Your task to perform on an android device: open a new tab in the chrome app Image 0: 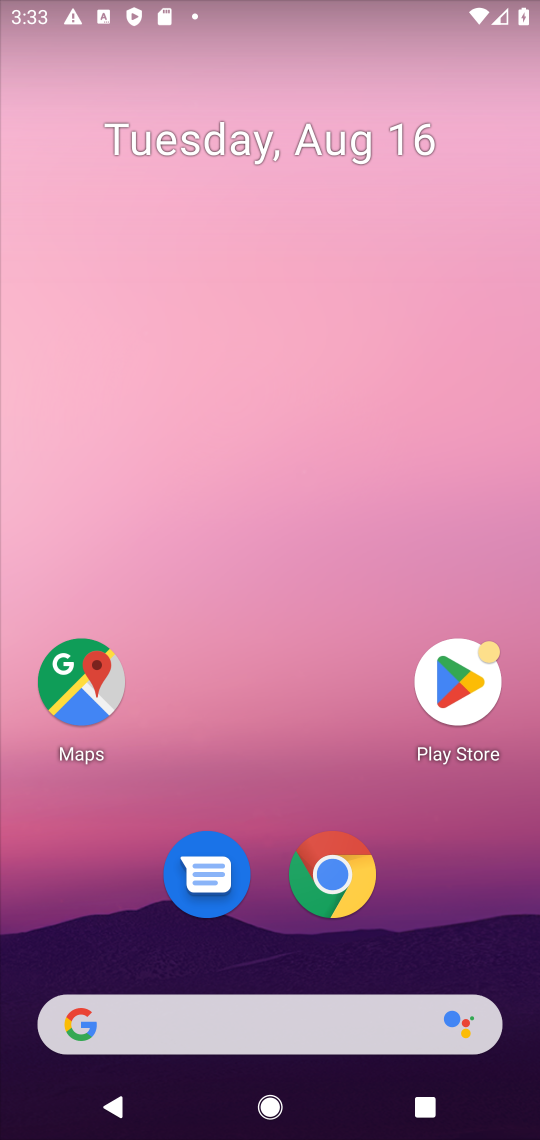
Step 0: click (346, 896)
Your task to perform on an android device: open a new tab in the chrome app Image 1: 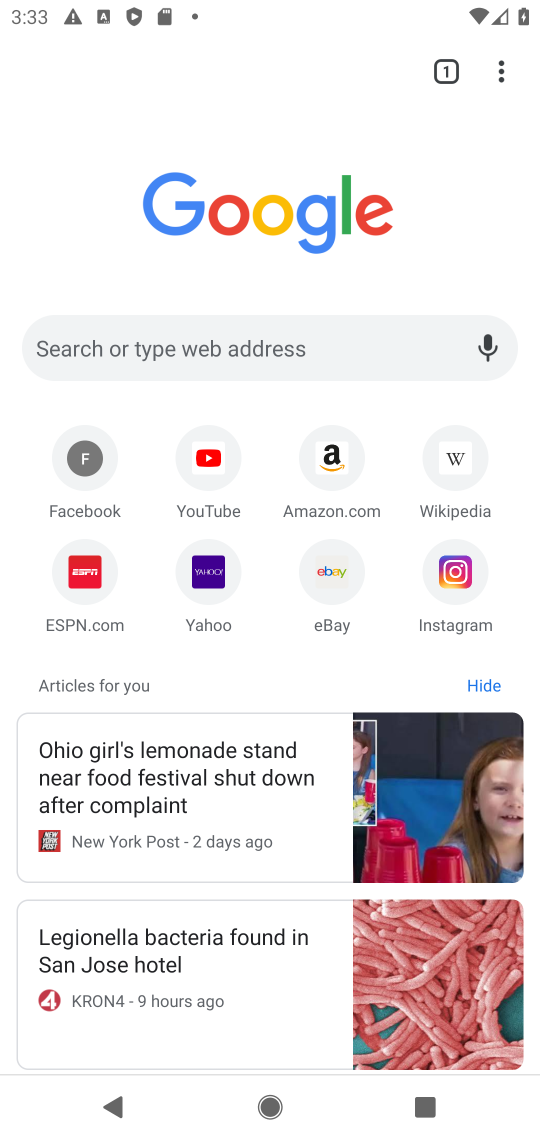
Step 1: click (447, 73)
Your task to perform on an android device: open a new tab in the chrome app Image 2: 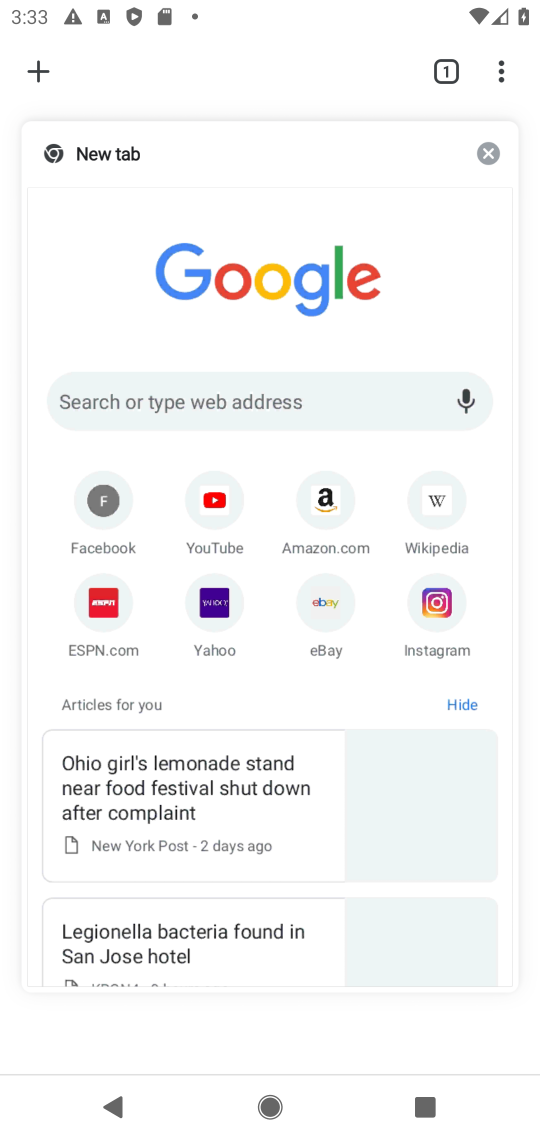
Step 2: click (37, 74)
Your task to perform on an android device: open a new tab in the chrome app Image 3: 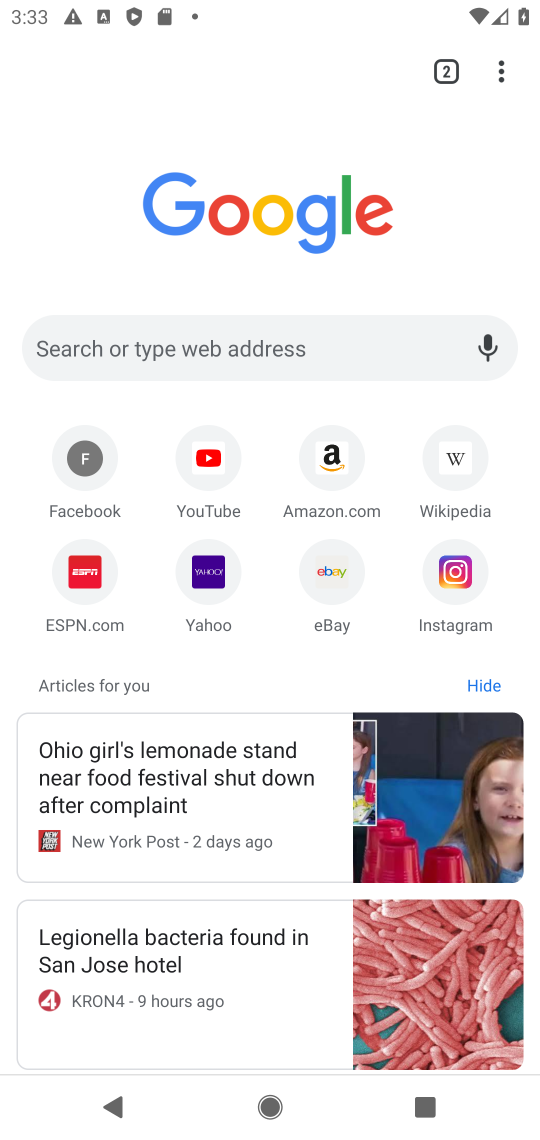
Step 3: task complete